Your task to perform on an android device: Open calendar and show me the third week of next month Image 0: 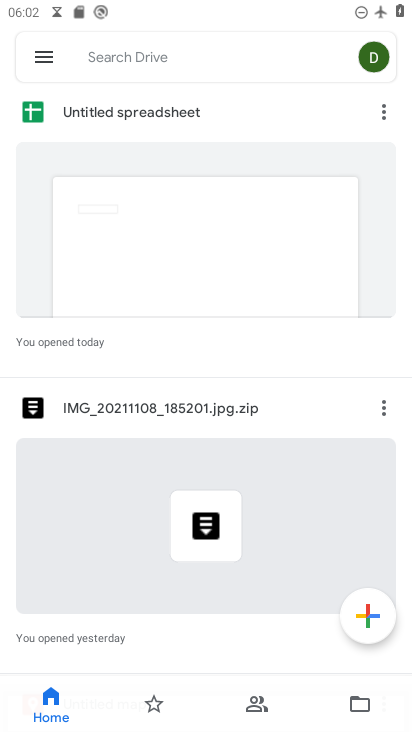
Step 0: press home button
Your task to perform on an android device: Open calendar and show me the third week of next month Image 1: 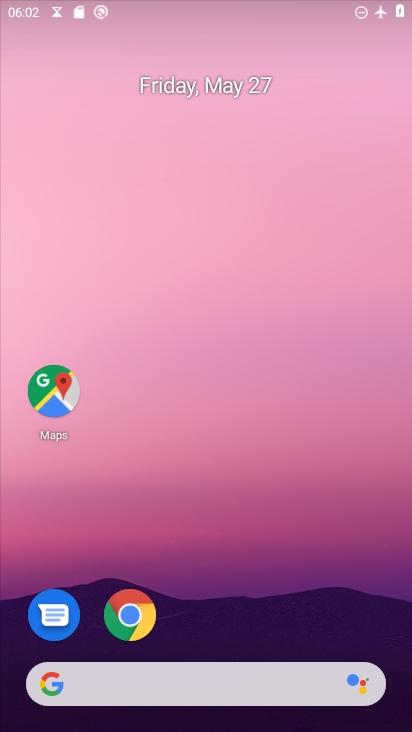
Step 1: drag from (198, 11) to (101, 1)
Your task to perform on an android device: Open calendar and show me the third week of next month Image 2: 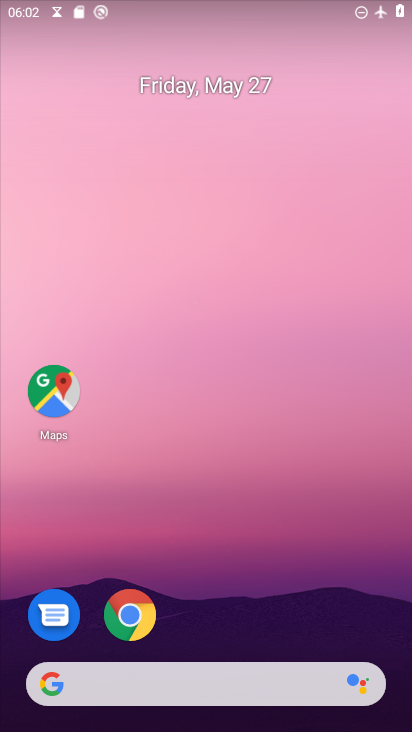
Step 2: drag from (295, 521) to (89, 2)
Your task to perform on an android device: Open calendar and show me the third week of next month Image 3: 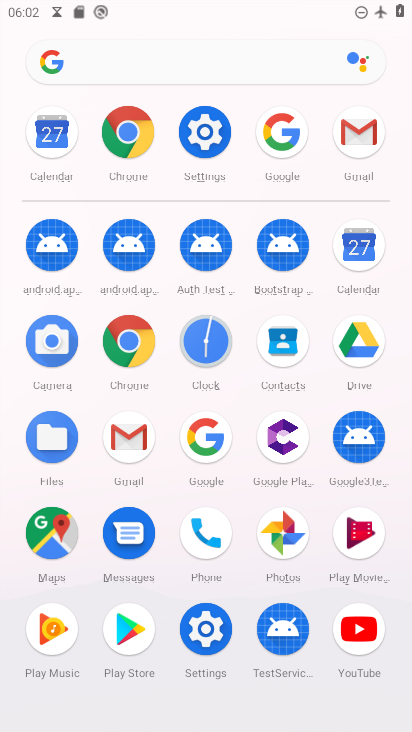
Step 3: click (48, 136)
Your task to perform on an android device: Open calendar and show me the third week of next month Image 4: 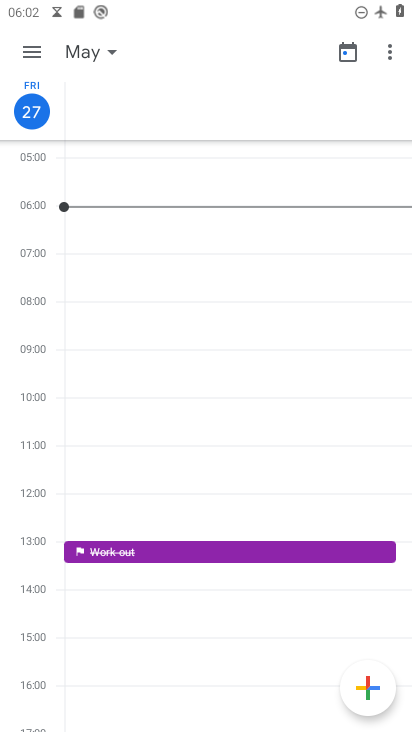
Step 4: click (109, 58)
Your task to perform on an android device: Open calendar and show me the third week of next month Image 5: 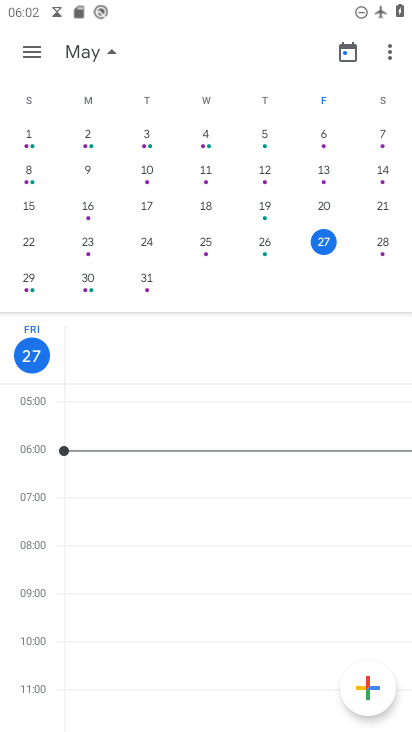
Step 5: drag from (350, 201) to (1, 253)
Your task to perform on an android device: Open calendar and show me the third week of next month Image 6: 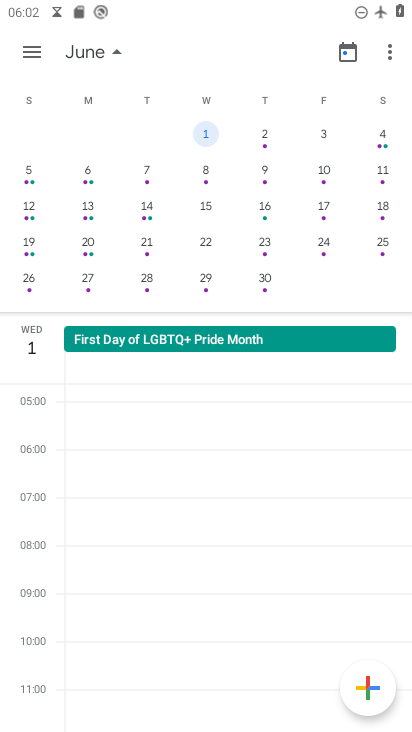
Step 6: click (29, 210)
Your task to perform on an android device: Open calendar and show me the third week of next month Image 7: 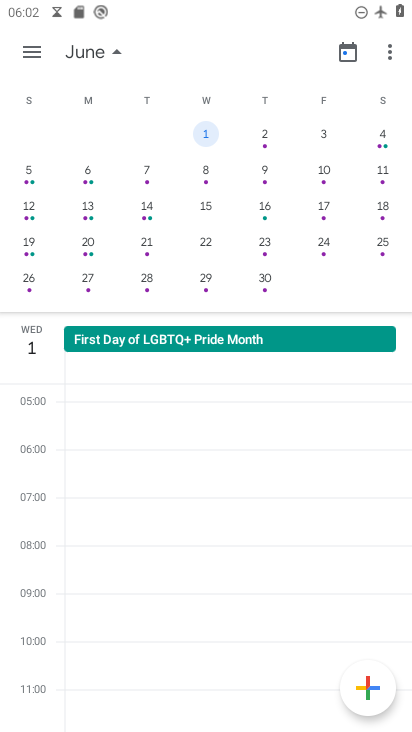
Step 7: click (36, 204)
Your task to perform on an android device: Open calendar and show me the third week of next month Image 8: 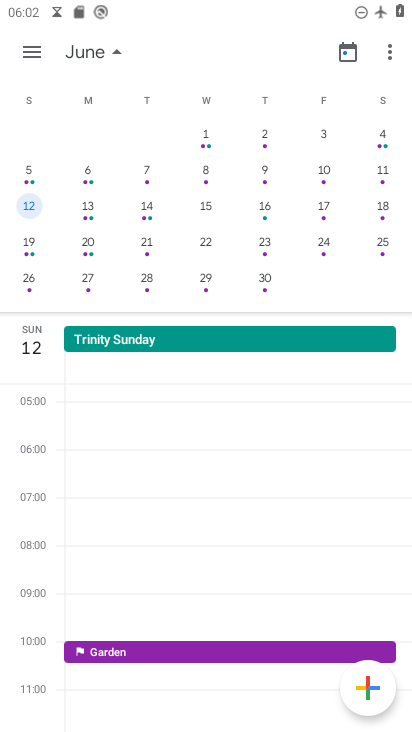
Step 8: drag from (38, 569) to (36, 128)
Your task to perform on an android device: Open calendar and show me the third week of next month Image 9: 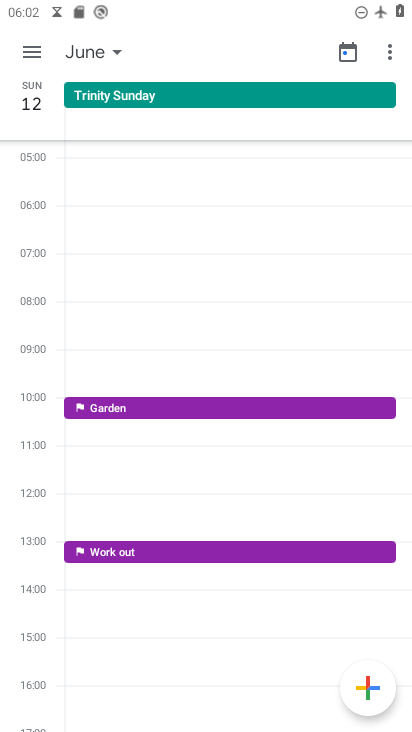
Step 9: drag from (38, 212) to (19, 563)
Your task to perform on an android device: Open calendar and show me the third week of next month Image 10: 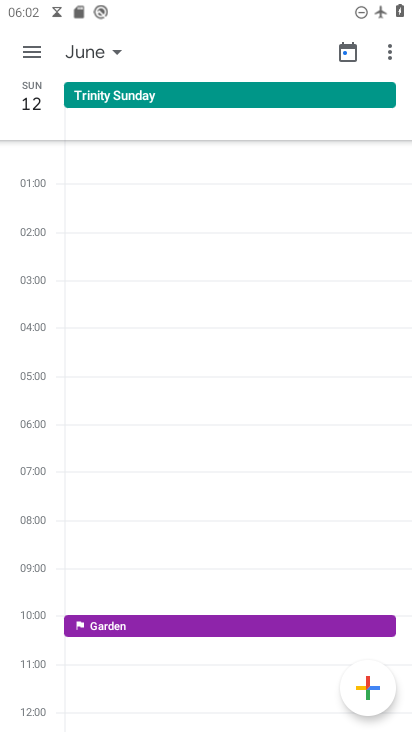
Step 10: click (45, 51)
Your task to perform on an android device: Open calendar and show me the third week of next month Image 11: 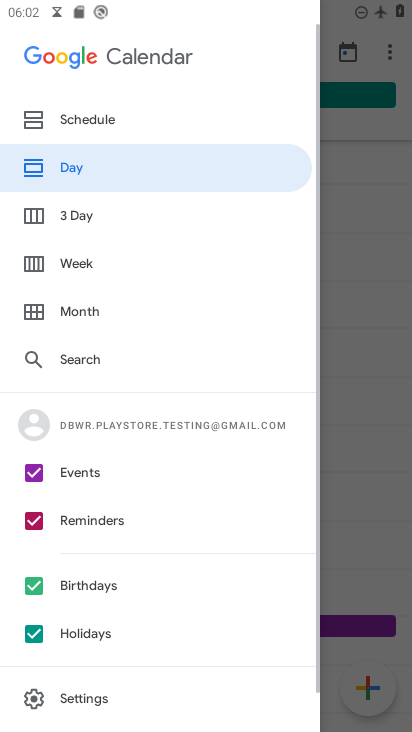
Step 11: click (96, 253)
Your task to perform on an android device: Open calendar and show me the third week of next month Image 12: 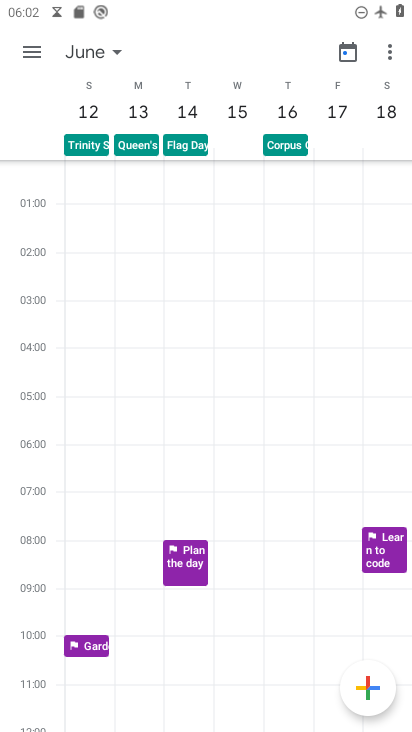
Step 12: click (109, 54)
Your task to perform on an android device: Open calendar and show me the third week of next month Image 13: 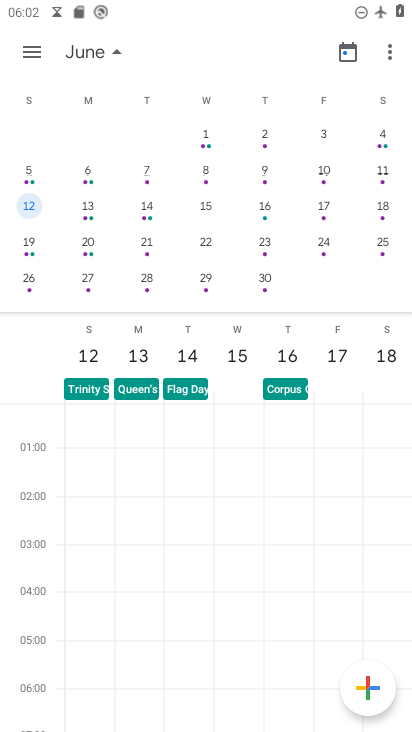
Step 13: task complete